Your task to perform on an android device: Open the phone app and click the voicemail tab. Image 0: 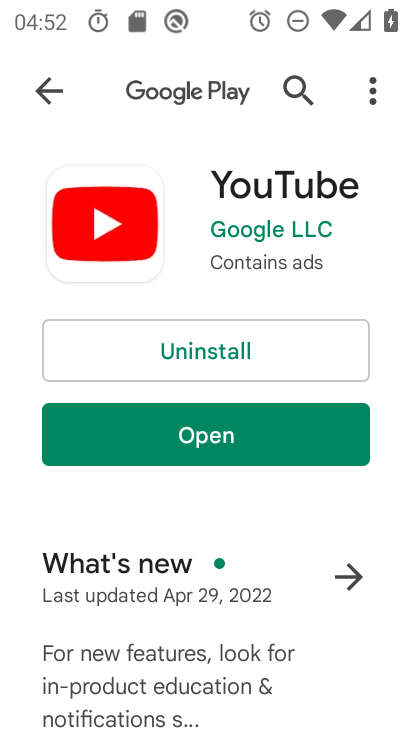
Step 0: press back button
Your task to perform on an android device: Open the phone app and click the voicemail tab. Image 1: 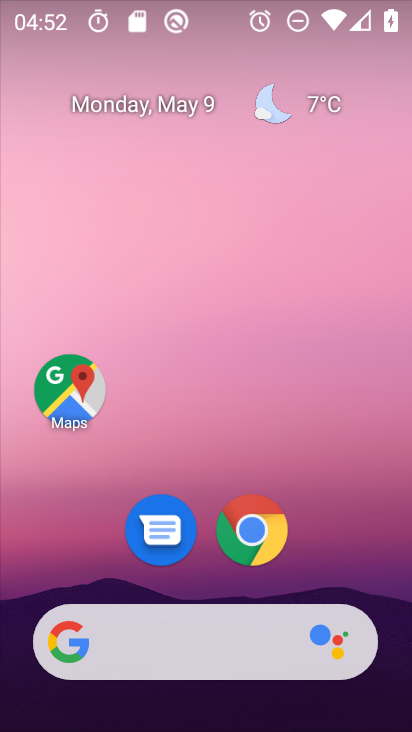
Step 1: drag from (196, 581) to (313, 67)
Your task to perform on an android device: Open the phone app and click the voicemail tab. Image 2: 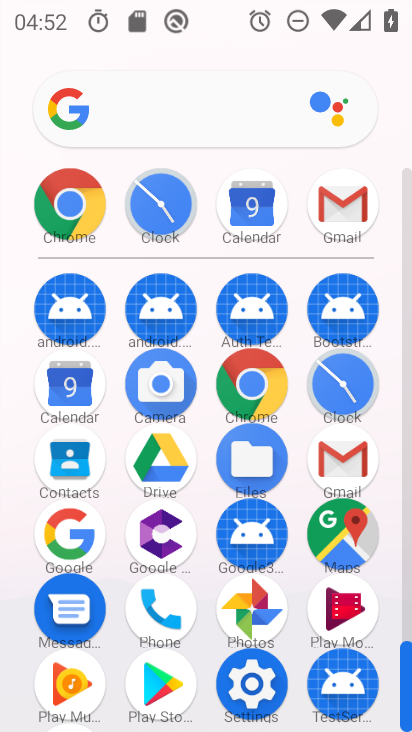
Step 2: click (171, 609)
Your task to perform on an android device: Open the phone app and click the voicemail tab. Image 3: 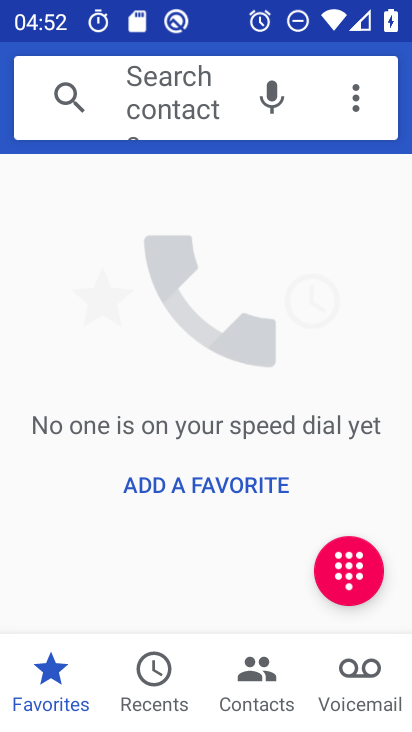
Step 3: click (362, 688)
Your task to perform on an android device: Open the phone app and click the voicemail tab. Image 4: 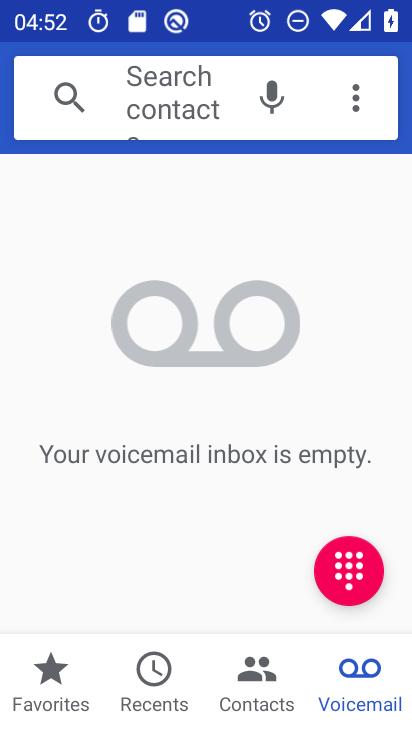
Step 4: task complete